Your task to perform on an android device: add a contact Image 0: 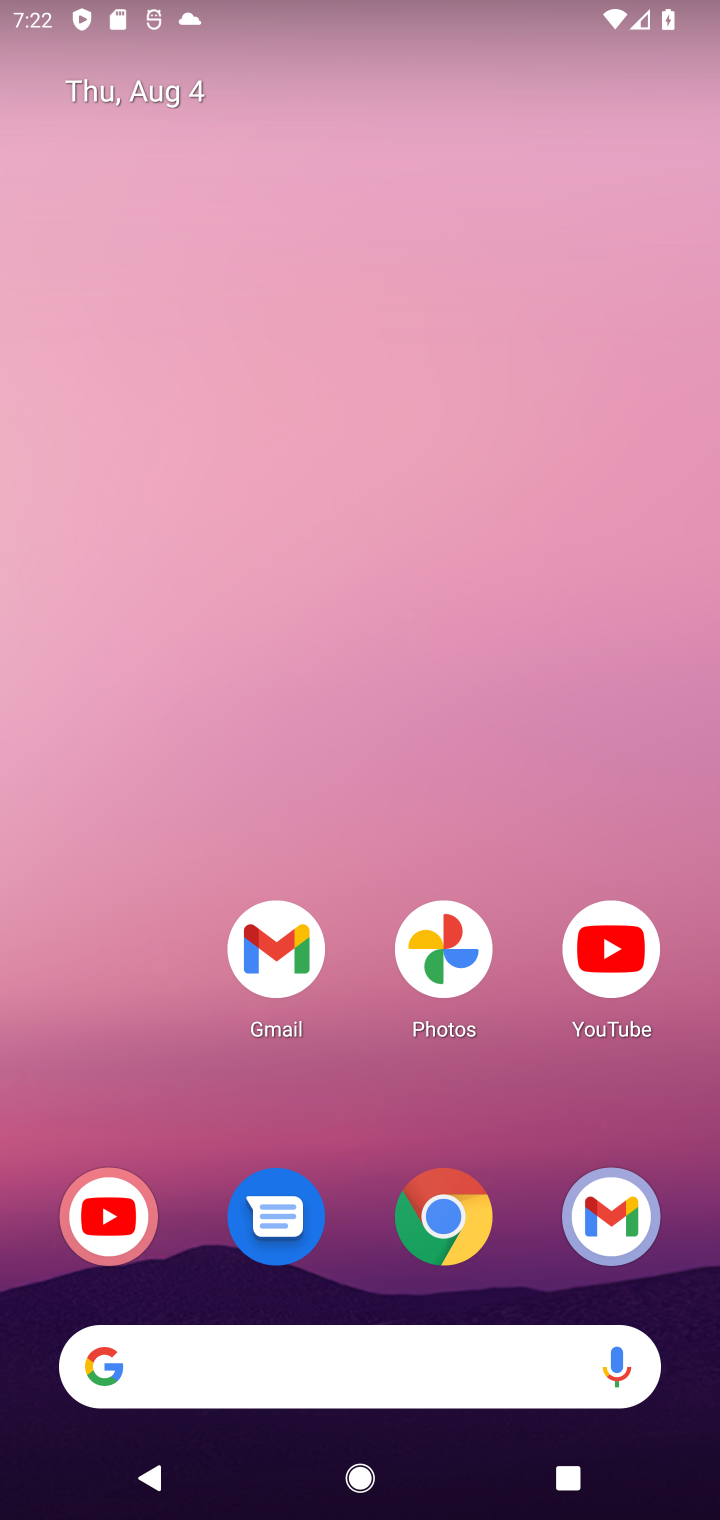
Step 0: drag from (370, 1251) to (349, 165)
Your task to perform on an android device: add a contact Image 1: 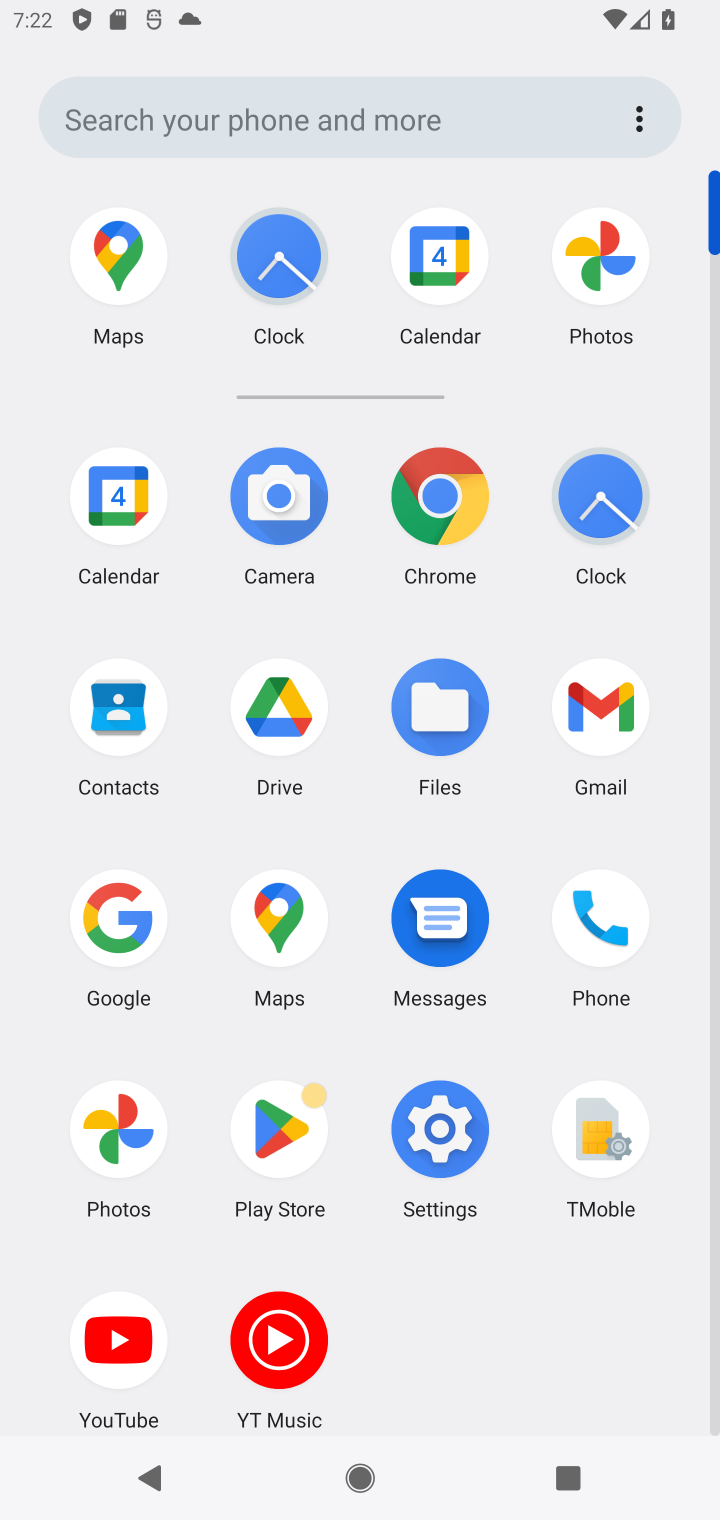
Step 1: click (109, 710)
Your task to perform on an android device: add a contact Image 2: 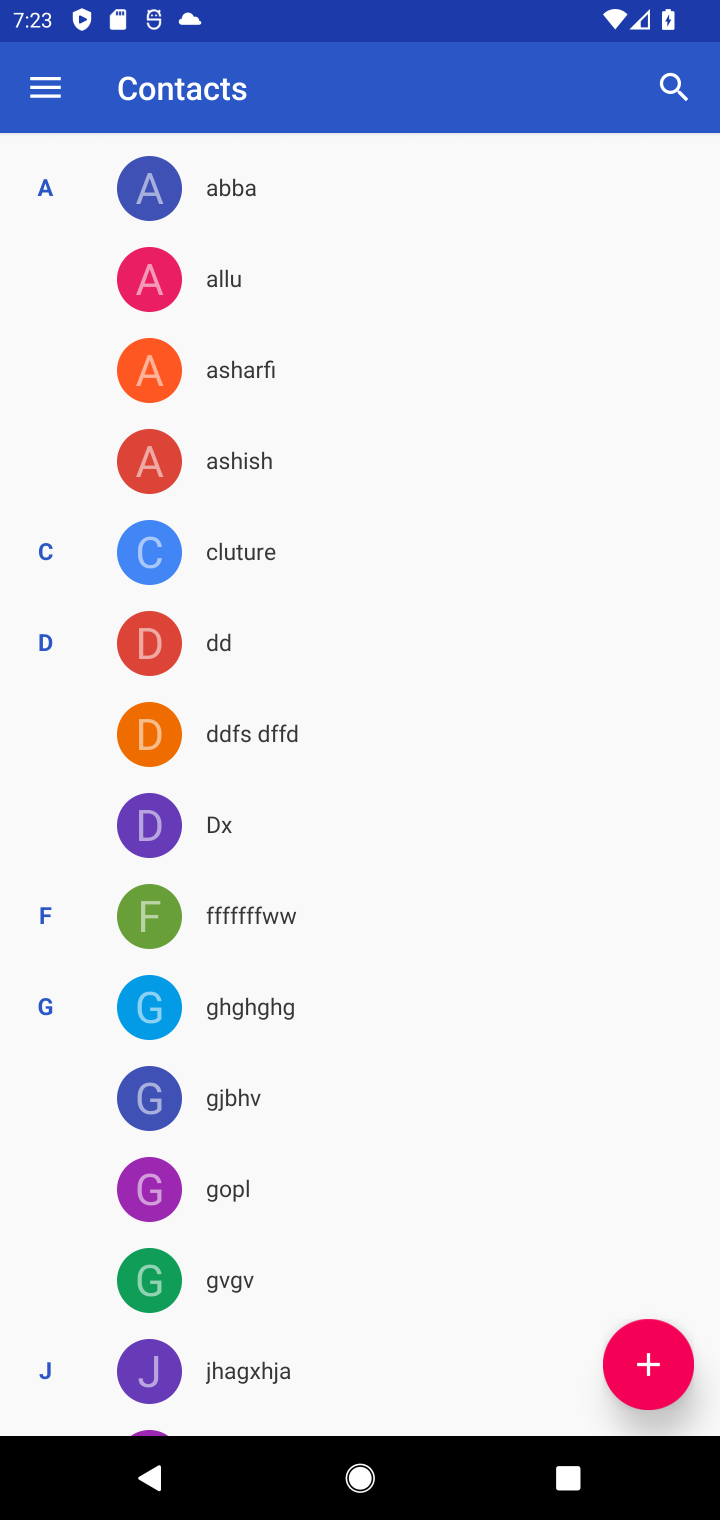
Step 2: click (644, 1366)
Your task to perform on an android device: add a contact Image 3: 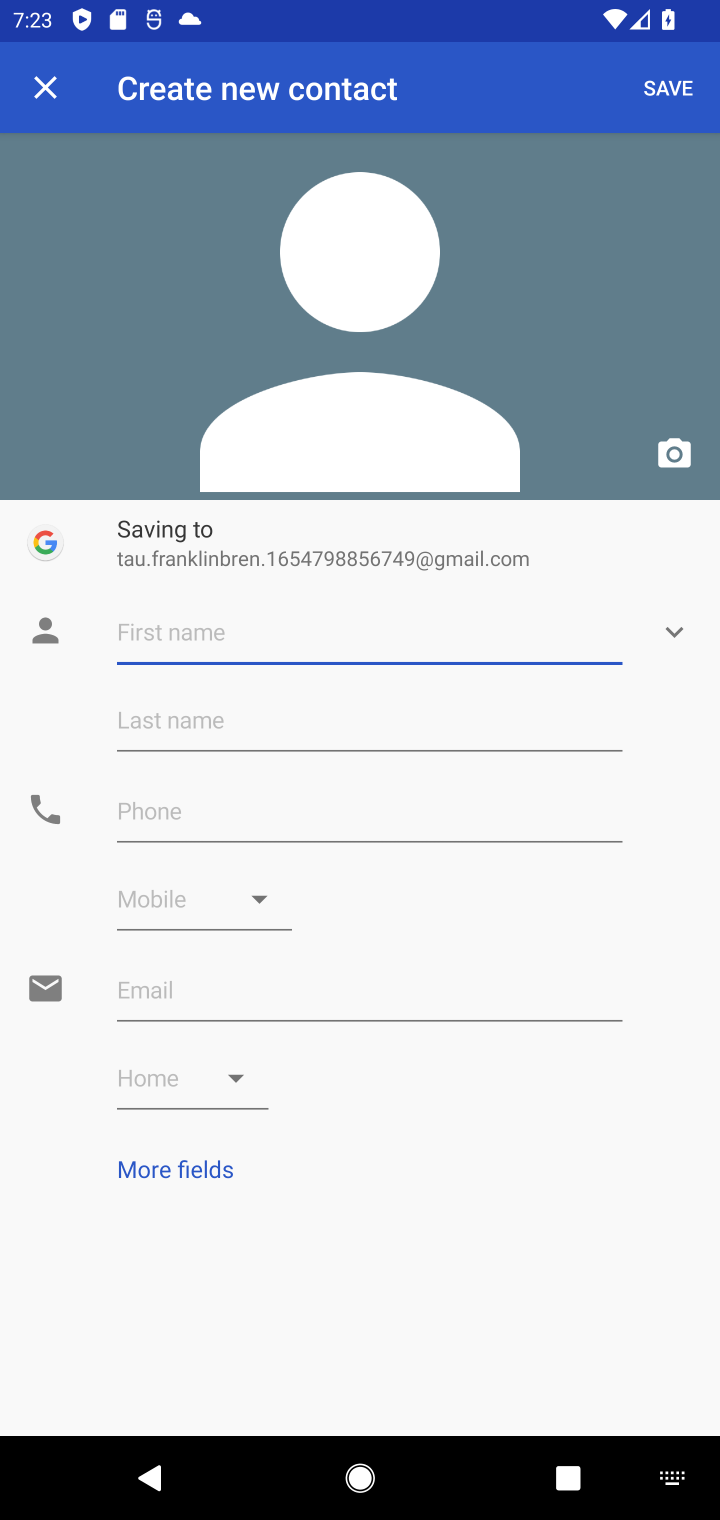
Step 3: type "sanatani"
Your task to perform on an android device: add a contact Image 4: 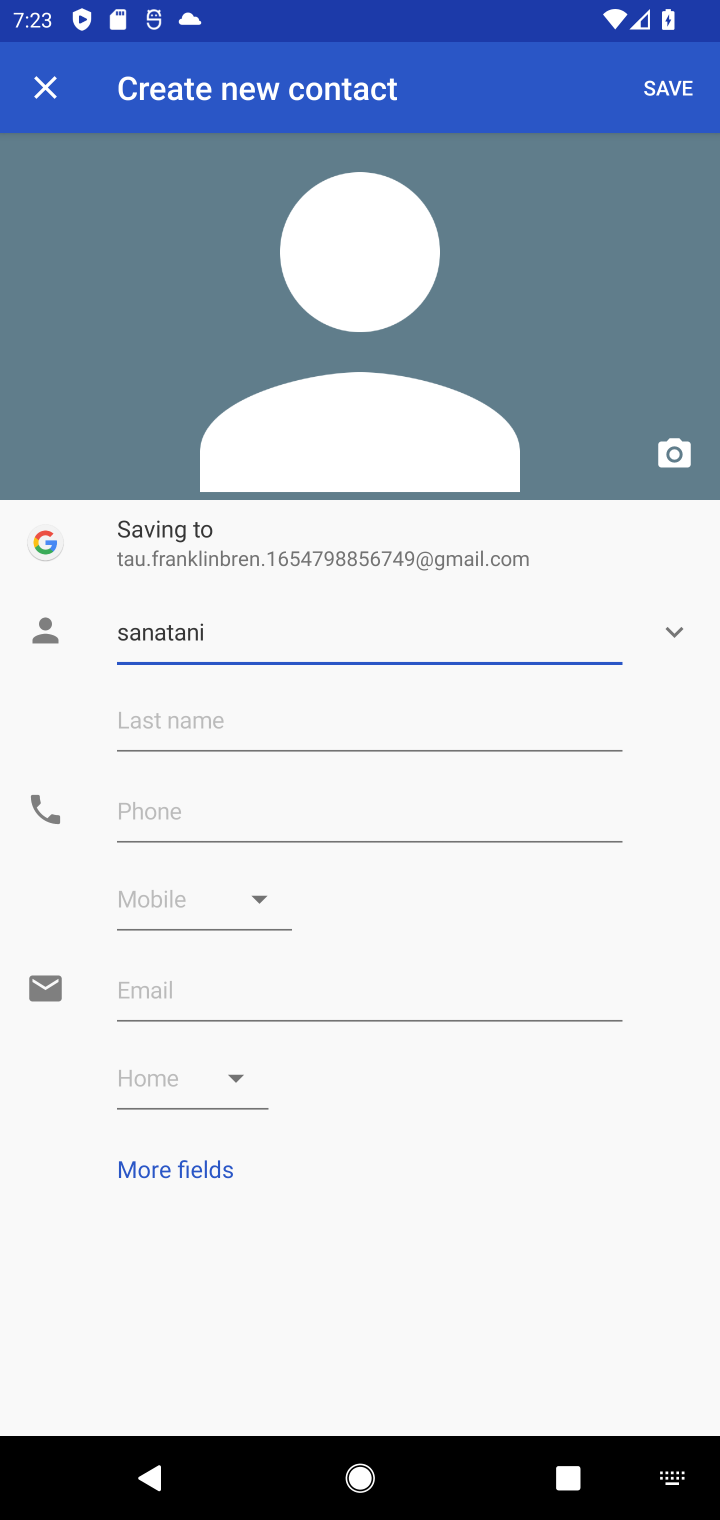
Step 4: click (158, 805)
Your task to perform on an android device: add a contact Image 5: 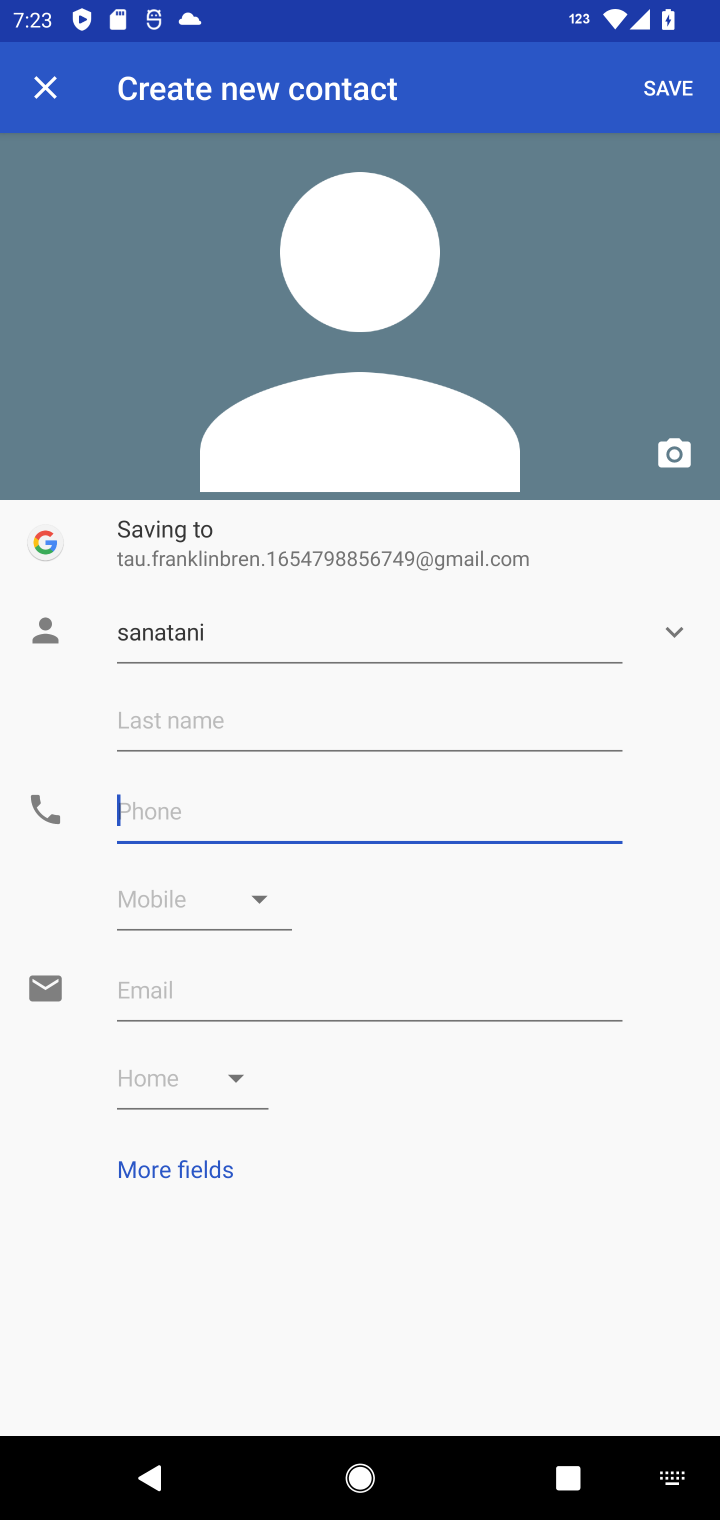
Step 5: type "8887"
Your task to perform on an android device: add a contact Image 6: 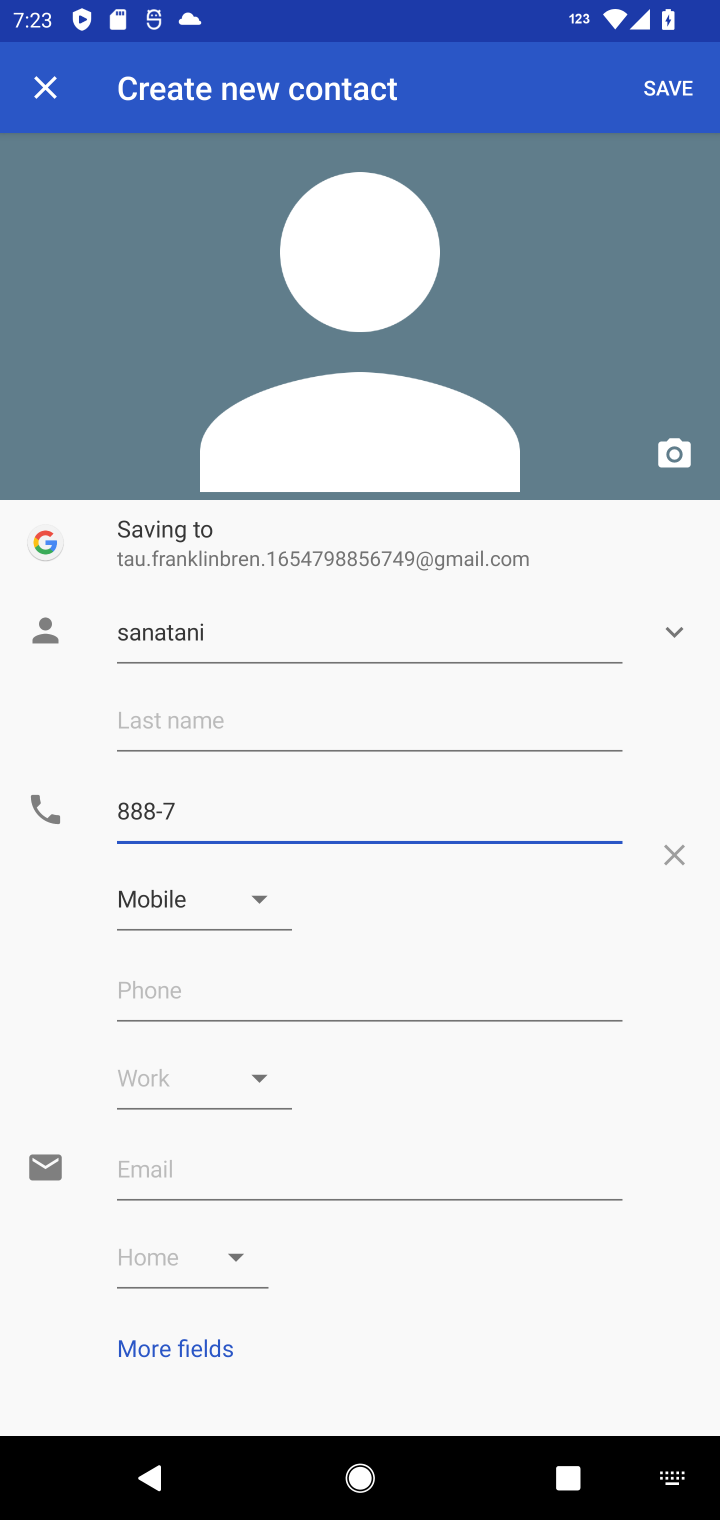
Step 6: click (665, 86)
Your task to perform on an android device: add a contact Image 7: 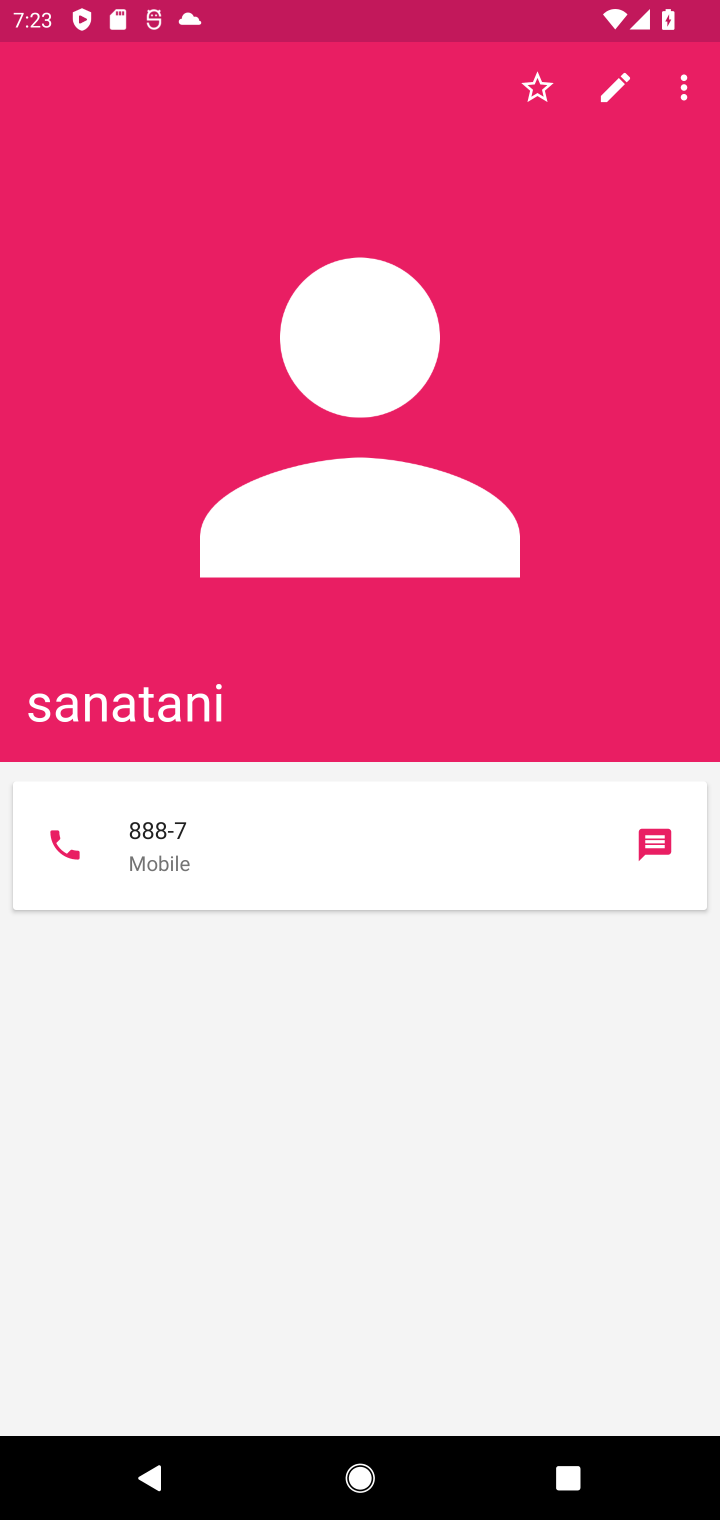
Step 7: task complete